Your task to perform on an android device: set the stopwatch Image 0: 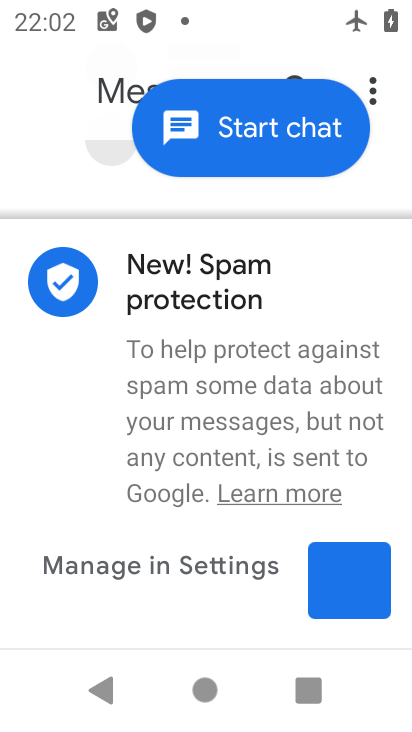
Step 0: press home button
Your task to perform on an android device: set the stopwatch Image 1: 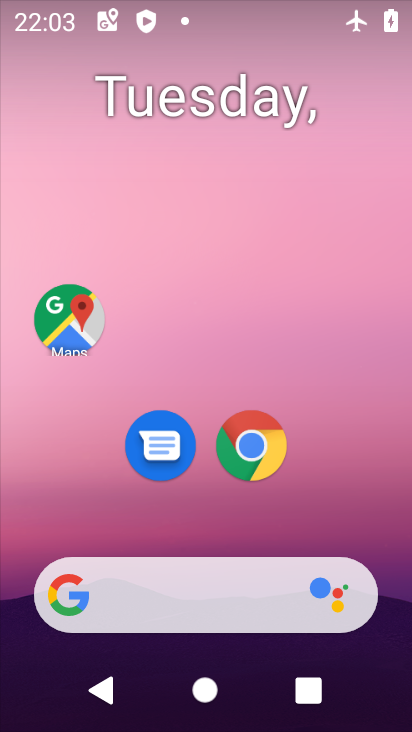
Step 1: drag from (400, 550) to (327, 172)
Your task to perform on an android device: set the stopwatch Image 2: 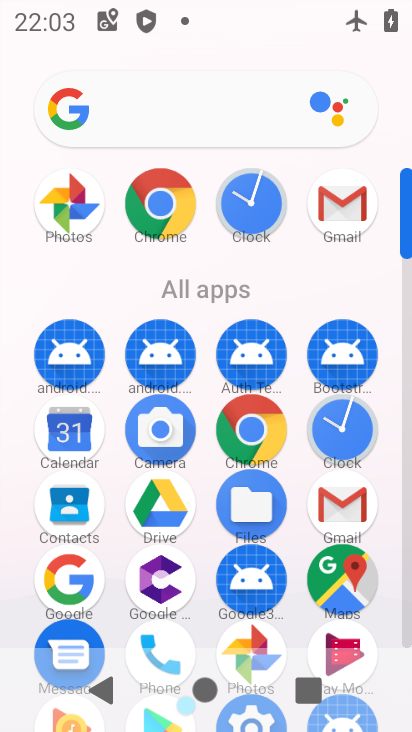
Step 2: click (331, 424)
Your task to perform on an android device: set the stopwatch Image 3: 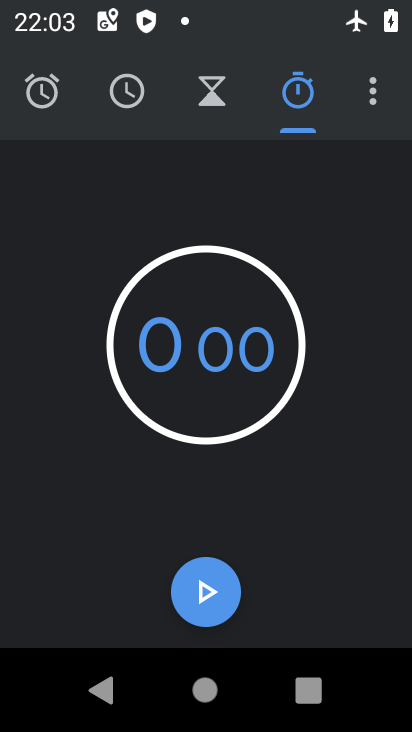
Step 3: click (199, 594)
Your task to perform on an android device: set the stopwatch Image 4: 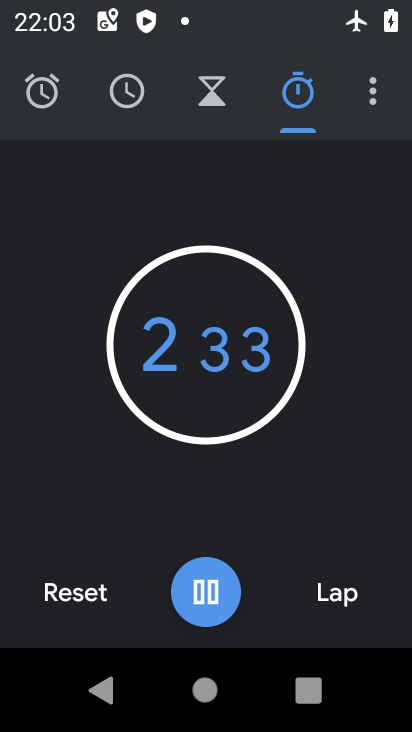
Step 4: task complete